Your task to perform on an android device: clear history in the chrome app Image 0: 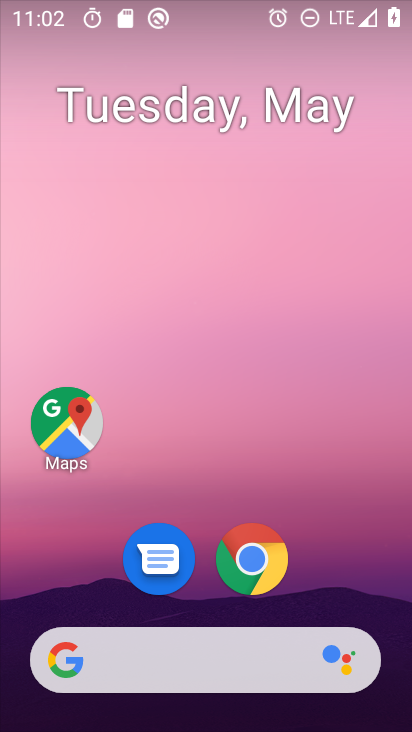
Step 0: drag from (398, 637) to (268, 56)
Your task to perform on an android device: clear history in the chrome app Image 1: 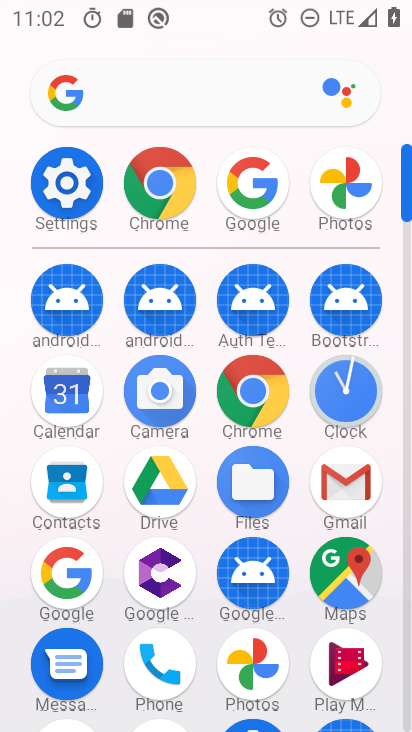
Step 1: click (248, 389)
Your task to perform on an android device: clear history in the chrome app Image 2: 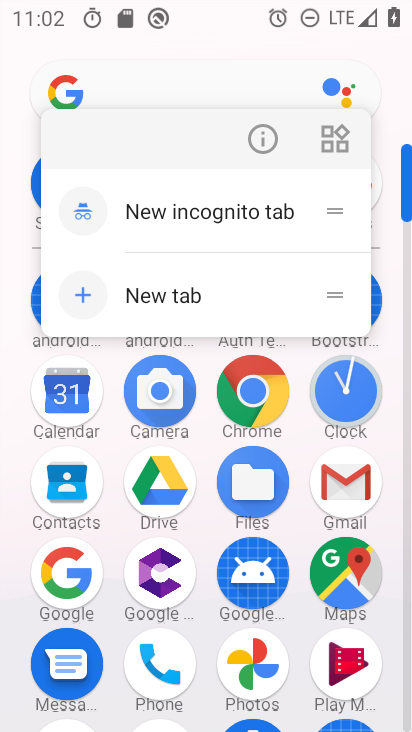
Step 2: click (248, 389)
Your task to perform on an android device: clear history in the chrome app Image 3: 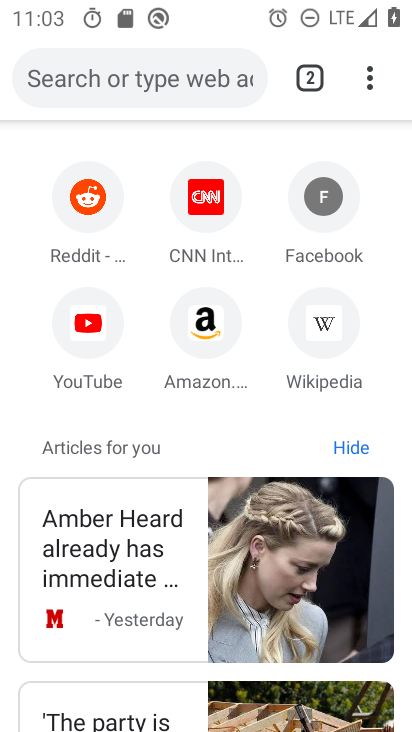
Step 3: click (375, 77)
Your task to perform on an android device: clear history in the chrome app Image 4: 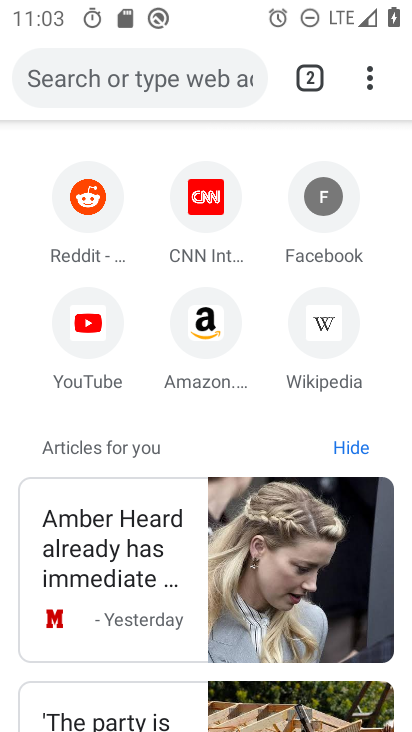
Step 4: click (367, 66)
Your task to perform on an android device: clear history in the chrome app Image 5: 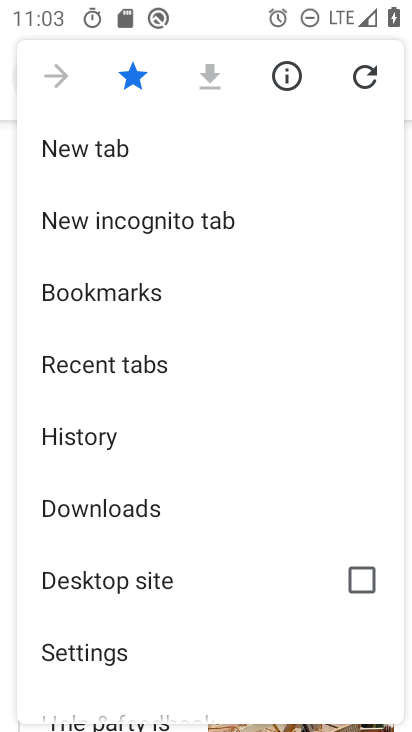
Step 5: click (100, 435)
Your task to perform on an android device: clear history in the chrome app Image 6: 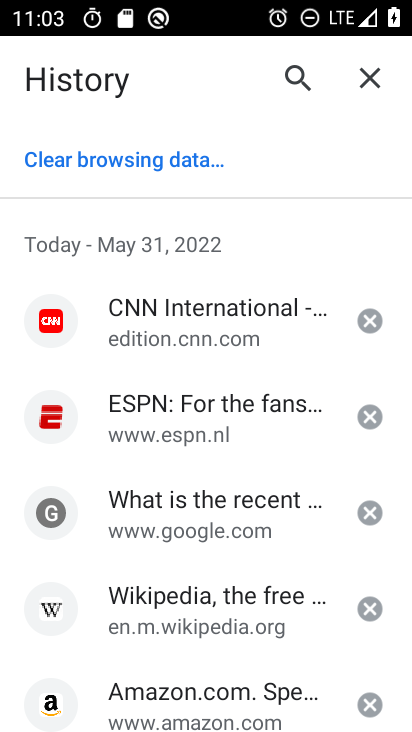
Step 6: click (147, 167)
Your task to perform on an android device: clear history in the chrome app Image 7: 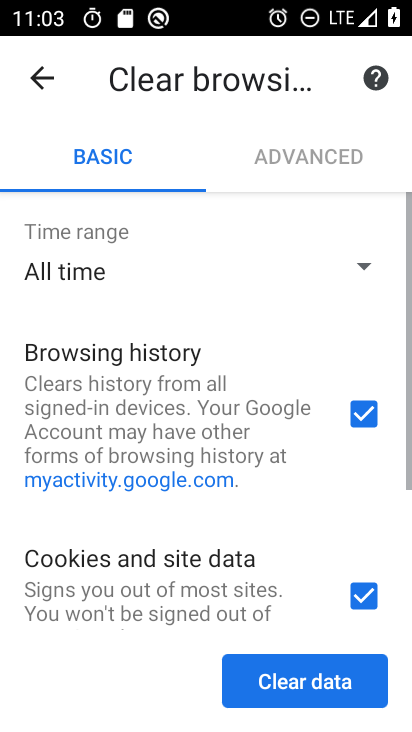
Step 7: click (306, 670)
Your task to perform on an android device: clear history in the chrome app Image 8: 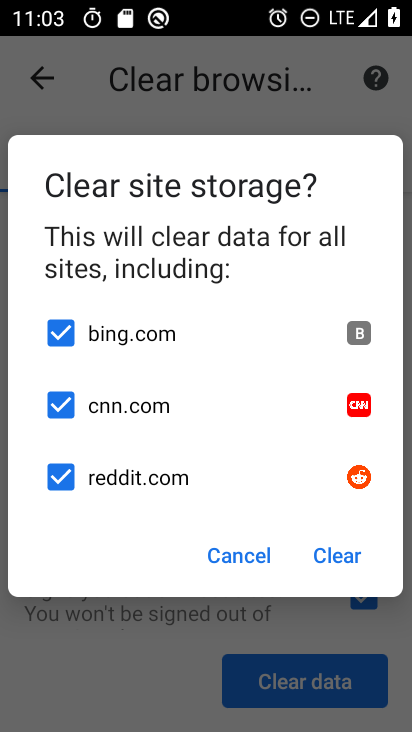
Step 8: click (345, 553)
Your task to perform on an android device: clear history in the chrome app Image 9: 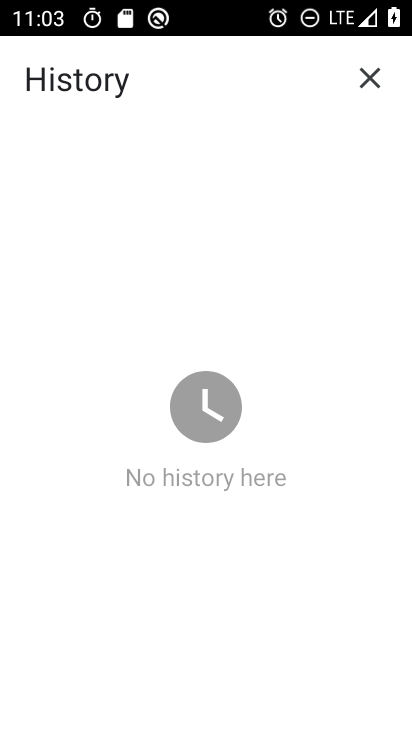
Step 9: task complete